Your task to perform on an android device: Open Reddit.com Image 0: 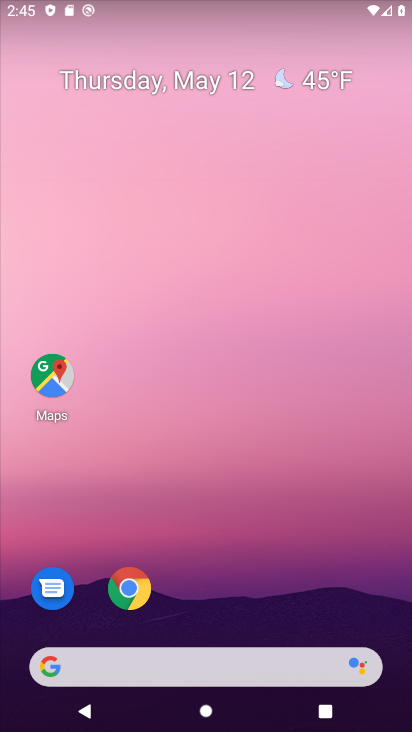
Step 0: click (129, 584)
Your task to perform on an android device: Open Reddit.com Image 1: 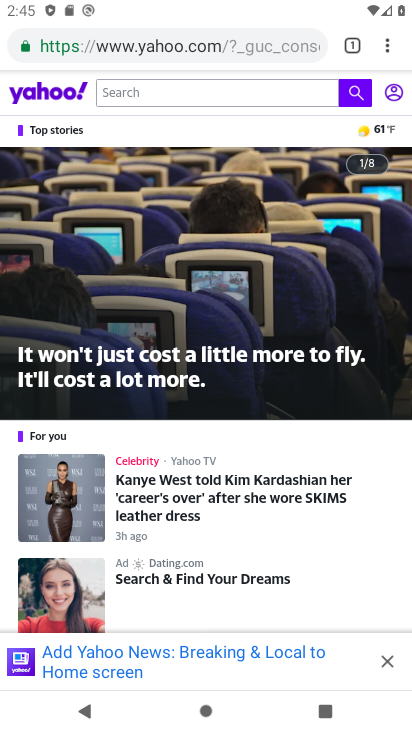
Step 1: click (198, 41)
Your task to perform on an android device: Open Reddit.com Image 2: 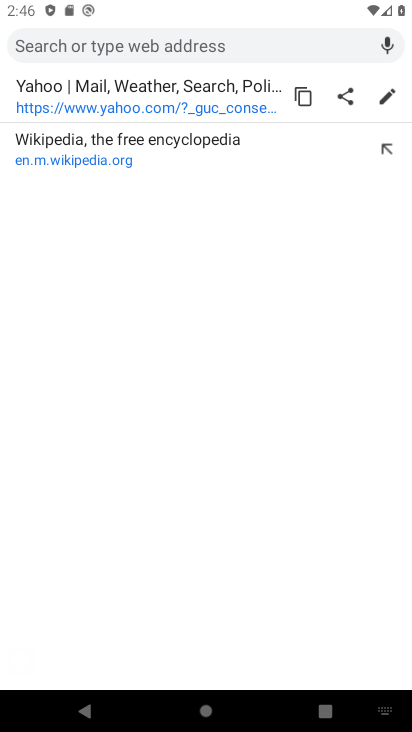
Step 2: type "www.reddit.com"
Your task to perform on an android device: Open Reddit.com Image 3: 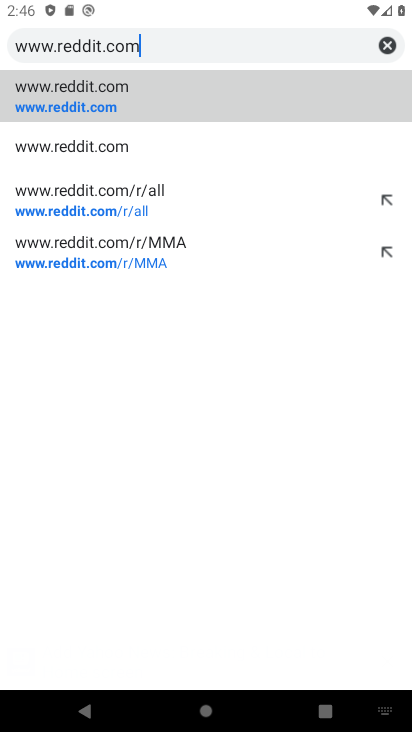
Step 3: click (50, 100)
Your task to perform on an android device: Open Reddit.com Image 4: 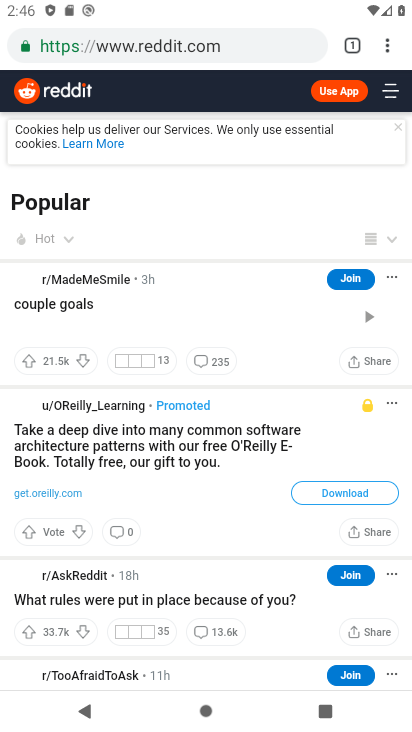
Step 4: task complete